Your task to perform on an android device: turn pop-ups on in chrome Image 0: 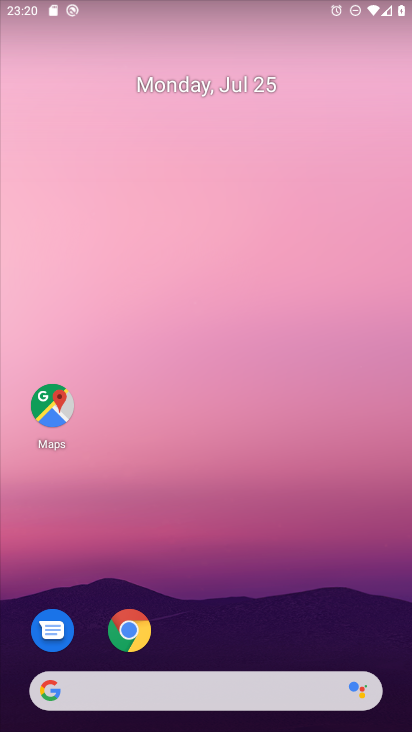
Step 0: drag from (310, 608) to (263, 193)
Your task to perform on an android device: turn pop-ups on in chrome Image 1: 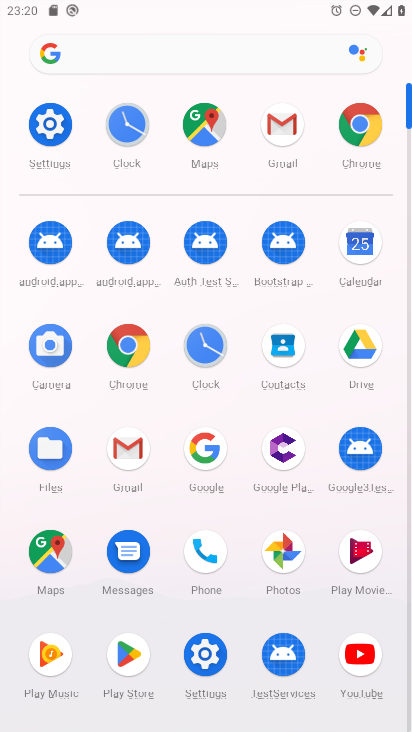
Step 1: click (352, 122)
Your task to perform on an android device: turn pop-ups on in chrome Image 2: 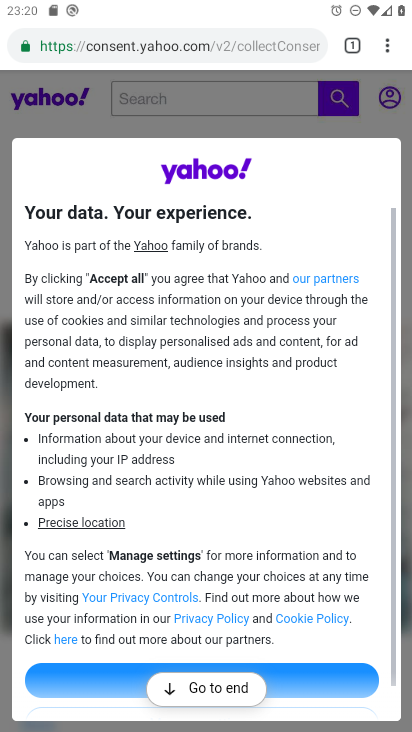
Step 2: click (384, 51)
Your task to perform on an android device: turn pop-ups on in chrome Image 3: 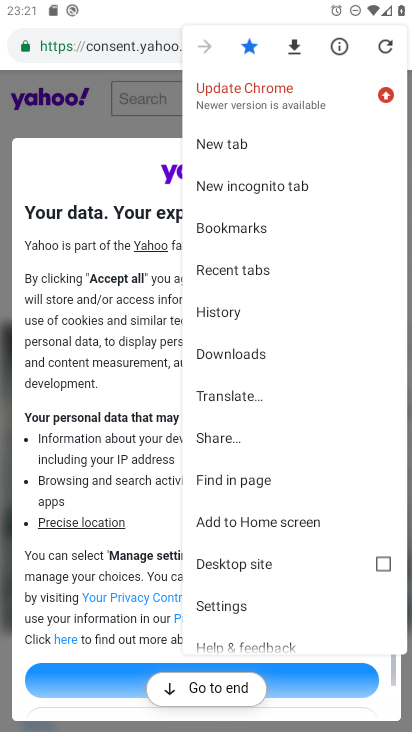
Step 3: click (237, 607)
Your task to perform on an android device: turn pop-ups on in chrome Image 4: 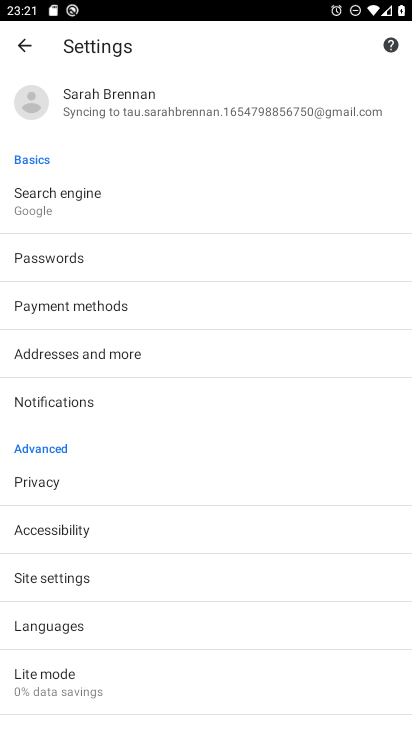
Step 4: click (77, 583)
Your task to perform on an android device: turn pop-ups on in chrome Image 5: 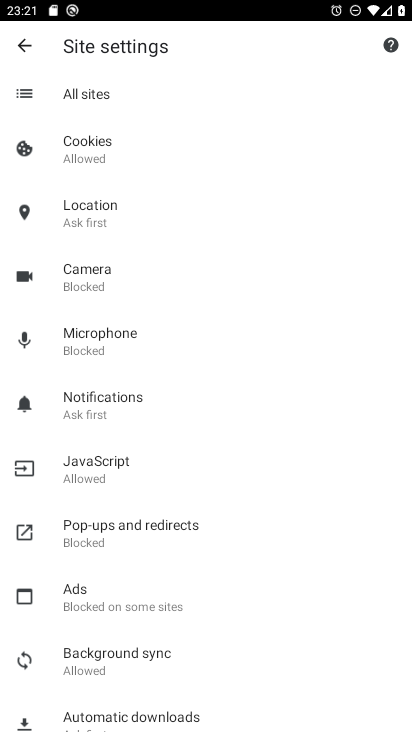
Step 5: click (148, 536)
Your task to perform on an android device: turn pop-ups on in chrome Image 6: 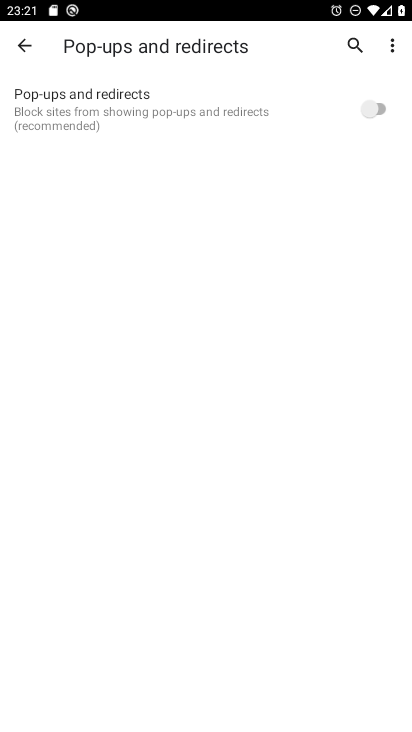
Step 6: click (352, 122)
Your task to perform on an android device: turn pop-ups on in chrome Image 7: 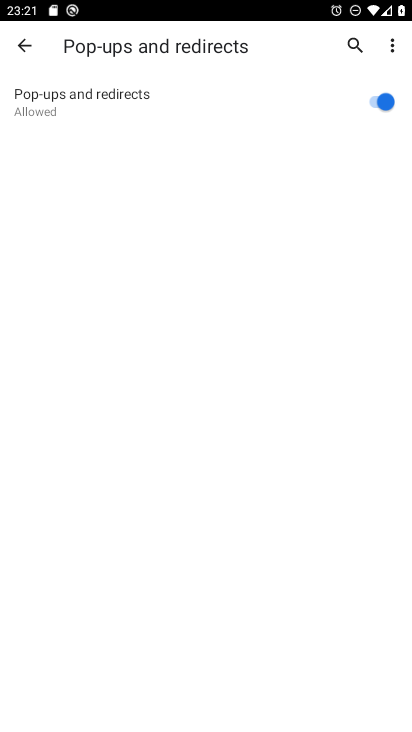
Step 7: task complete